Your task to perform on an android device: Open the Play Movies app and select the watchlist tab. Image 0: 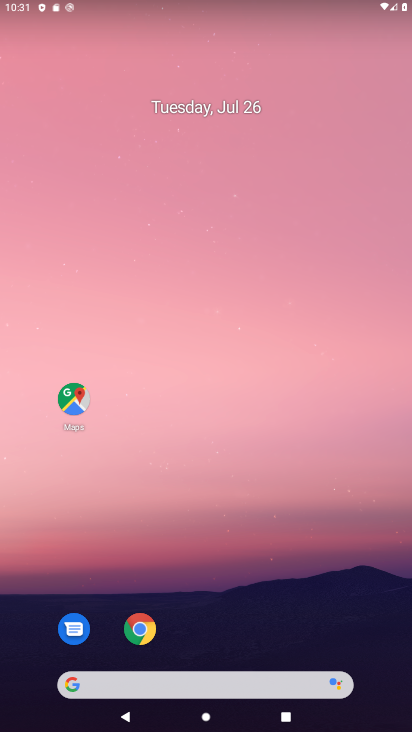
Step 0: drag from (350, 606) to (135, 20)
Your task to perform on an android device: Open the Play Movies app and select the watchlist tab. Image 1: 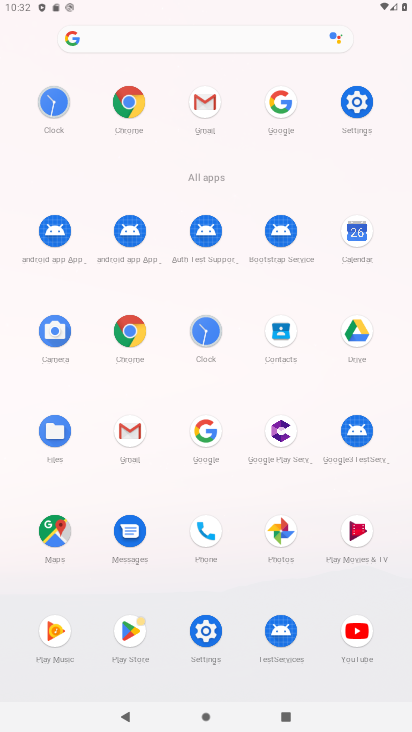
Step 1: click (359, 550)
Your task to perform on an android device: Open the Play Movies app and select the watchlist tab. Image 2: 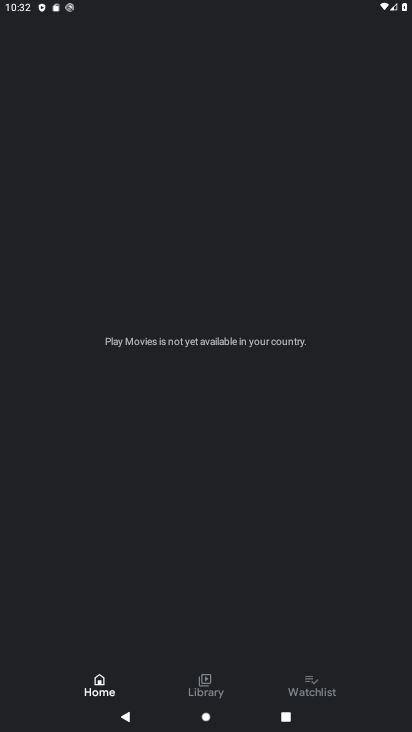
Step 2: click (312, 695)
Your task to perform on an android device: Open the Play Movies app and select the watchlist tab. Image 3: 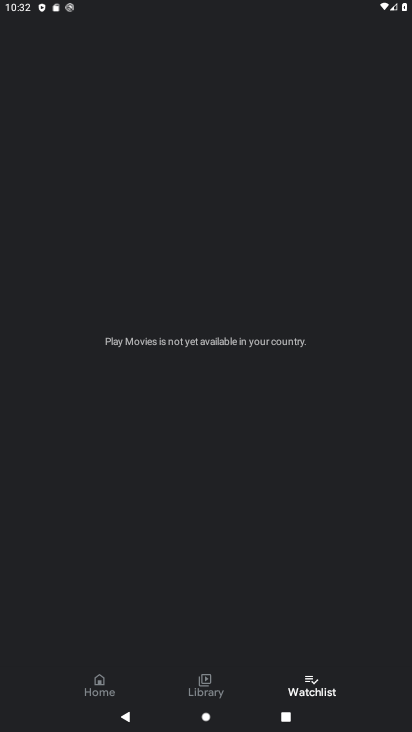
Step 3: task complete